Your task to perform on an android device: Turn on the flashlight Image 0: 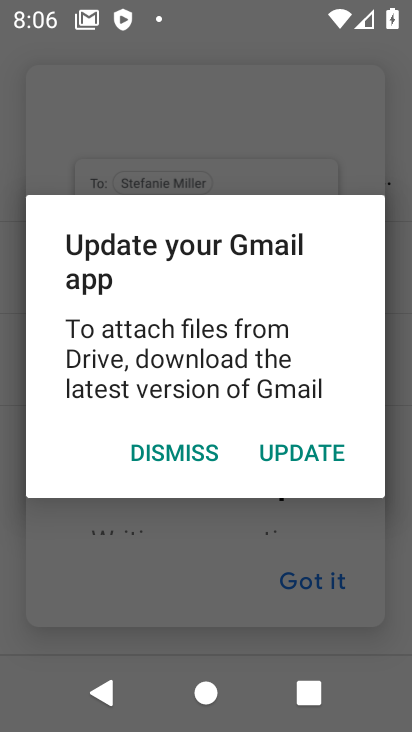
Step 0: press back button
Your task to perform on an android device: Turn on the flashlight Image 1: 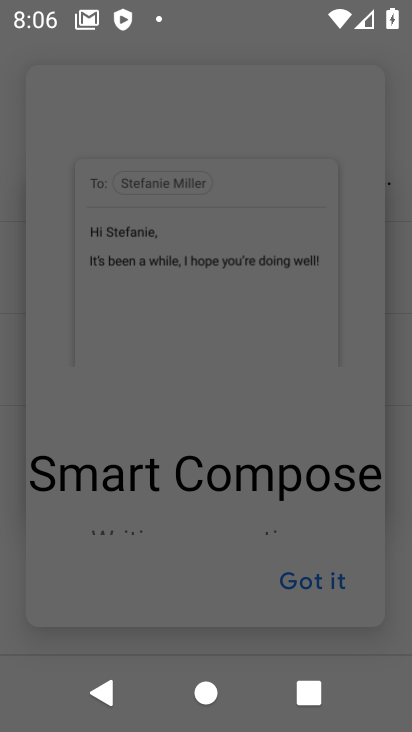
Step 1: press back button
Your task to perform on an android device: Turn on the flashlight Image 2: 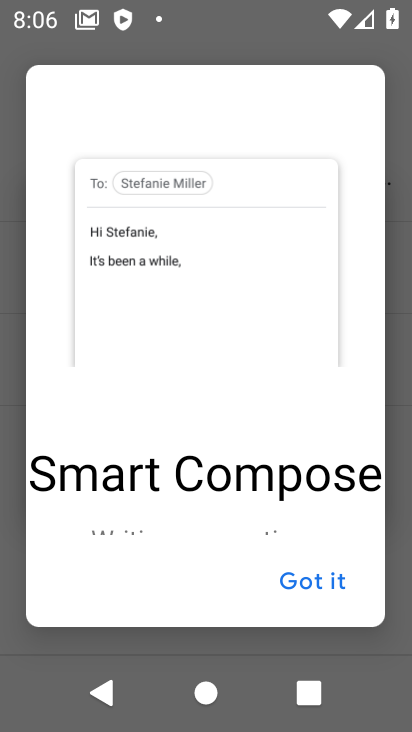
Step 2: press back button
Your task to perform on an android device: Turn on the flashlight Image 3: 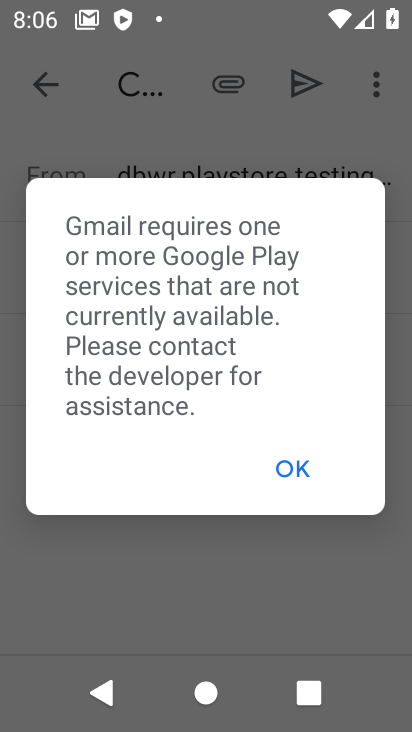
Step 3: press back button
Your task to perform on an android device: Turn on the flashlight Image 4: 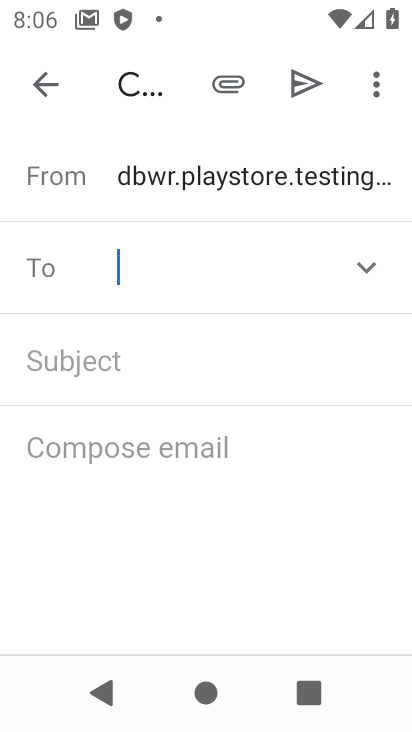
Step 4: press home button
Your task to perform on an android device: Turn on the flashlight Image 5: 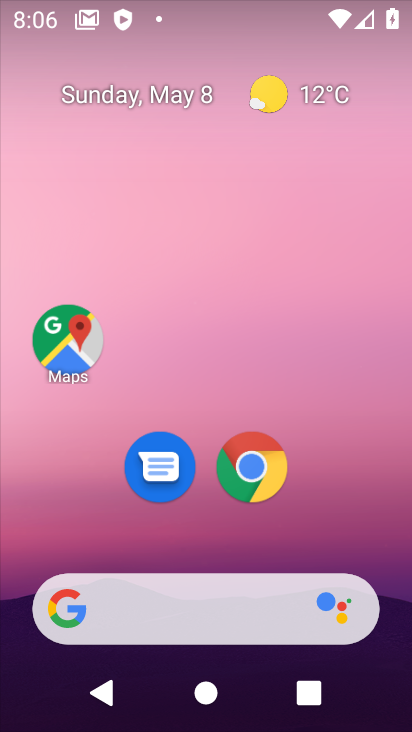
Step 5: drag from (223, 519) to (314, 27)
Your task to perform on an android device: Turn on the flashlight Image 6: 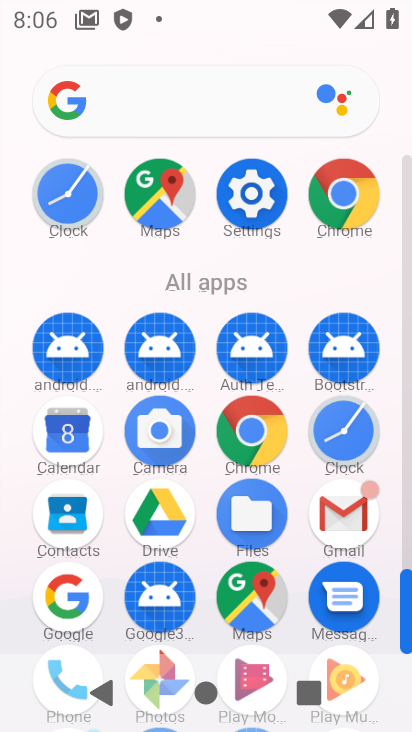
Step 6: click (215, 190)
Your task to perform on an android device: Turn on the flashlight Image 7: 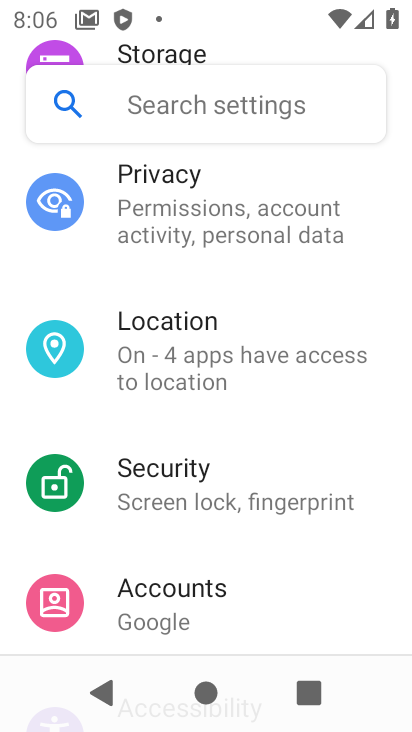
Step 7: click (173, 102)
Your task to perform on an android device: Turn on the flashlight Image 8: 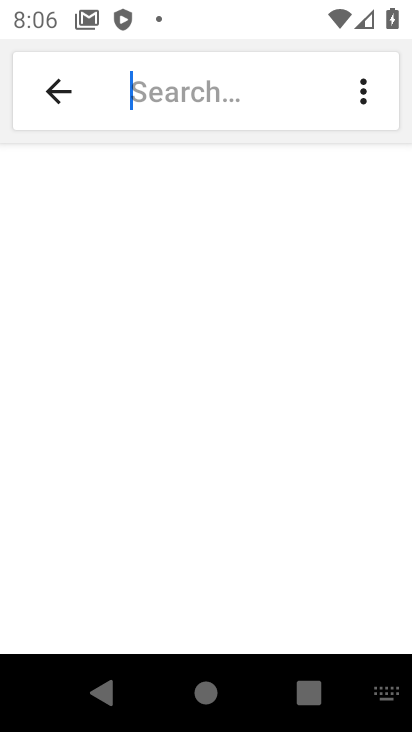
Step 8: type "flashlight"
Your task to perform on an android device: Turn on the flashlight Image 9: 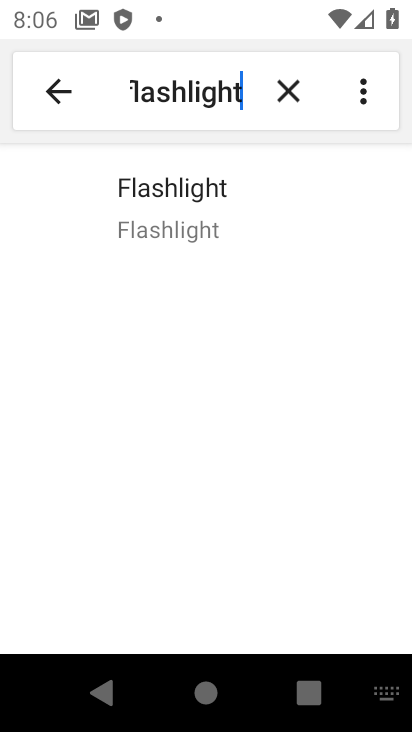
Step 9: click (193, 199)
Your task to perform on an android device: Turn on the flashlight Image 10: 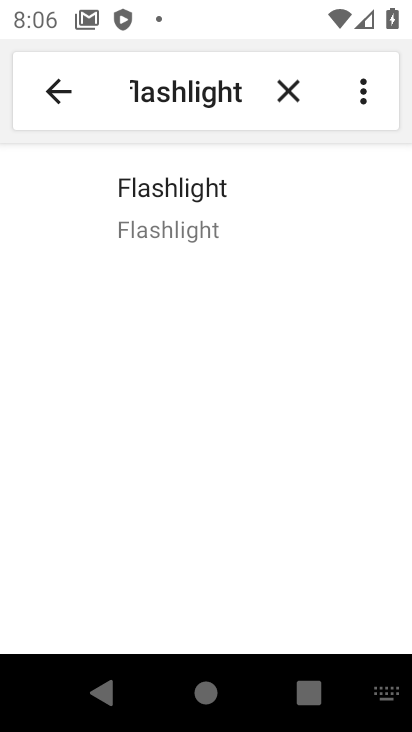
Step 10: task complete